Your task to perform on an android device: turn on sleep mode Image 0: 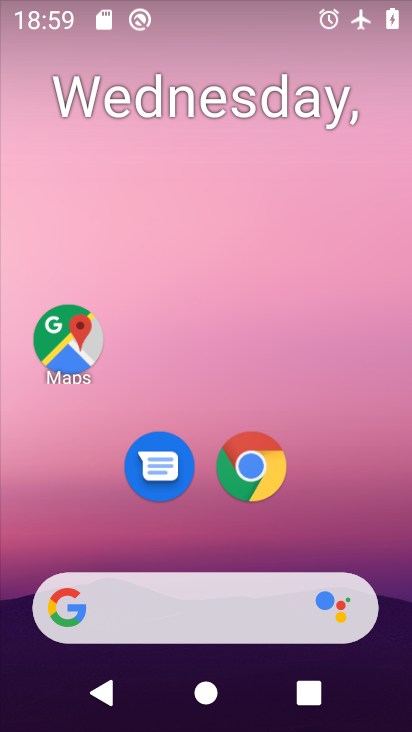
Step 0: drag from (361, 528) to (212, 42)
Your task to perform on an android device: turn on sleep mode Image 1: 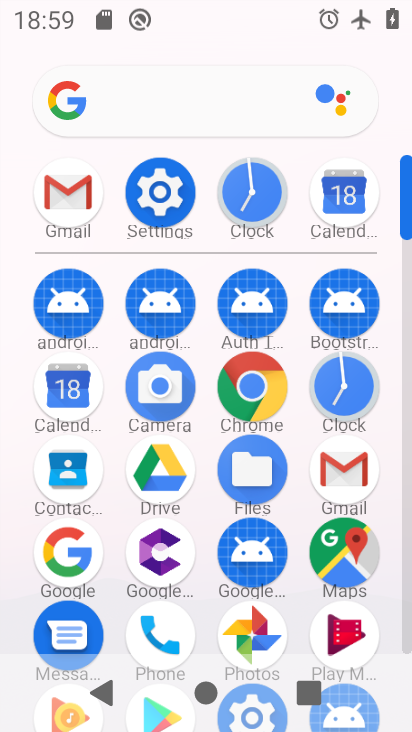
Step 1: click (153, 183)
Your task to perform on an android device: turn on sleep mode Image 2: 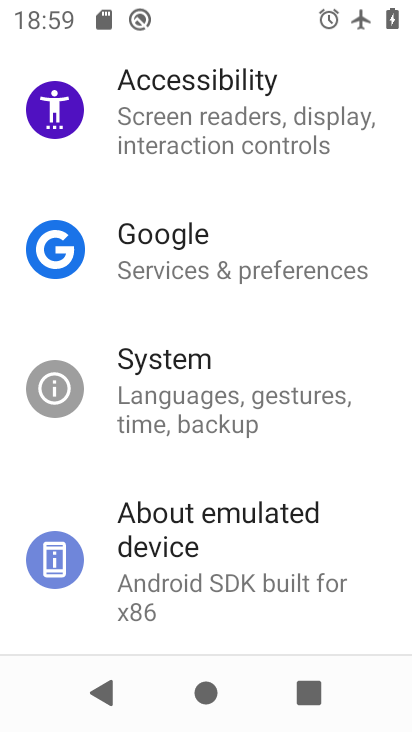
Step 2: drag from (223, 194) to (298, 716)
Your task to perform on an android device: turn on sleep mode Image 3: 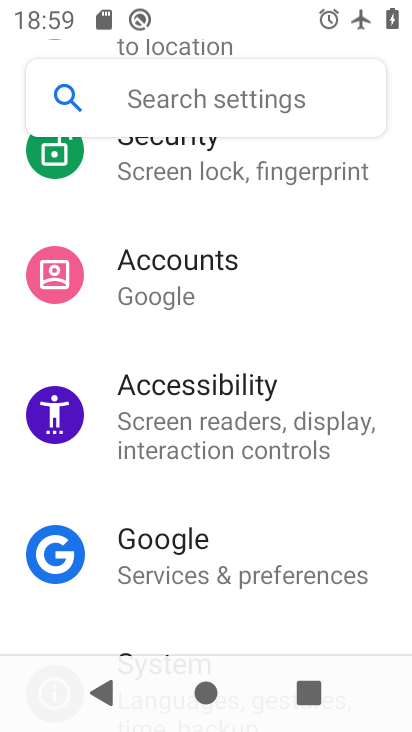
Step 3: drag from (150, 219) to (346, 661)
Your task to perform on an android device: turn on sleep mode Image 4: 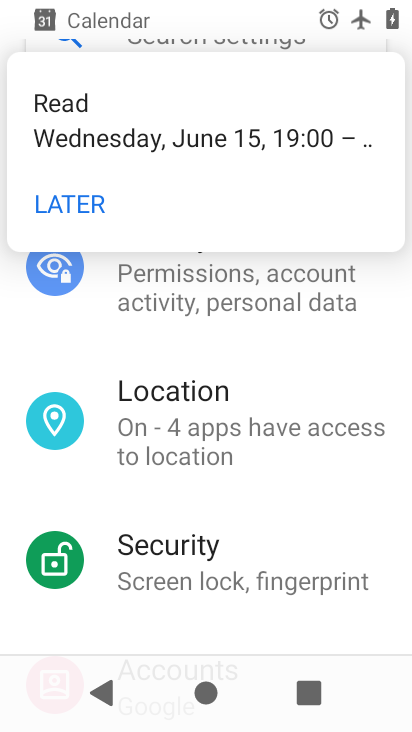
Step 4: click (81, 202)
Your task to perform on an android device: turn on sleep mode Image 5: 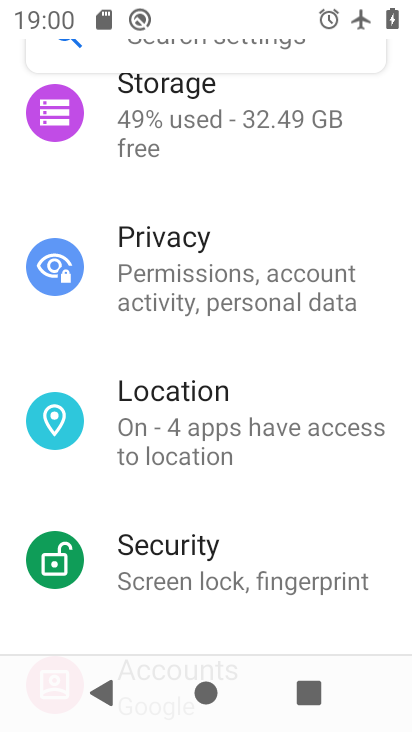
Step 5: drag from (170, 187) to (181, 620)
Your task to perform on an android device: turn on sleep mode Image 6: 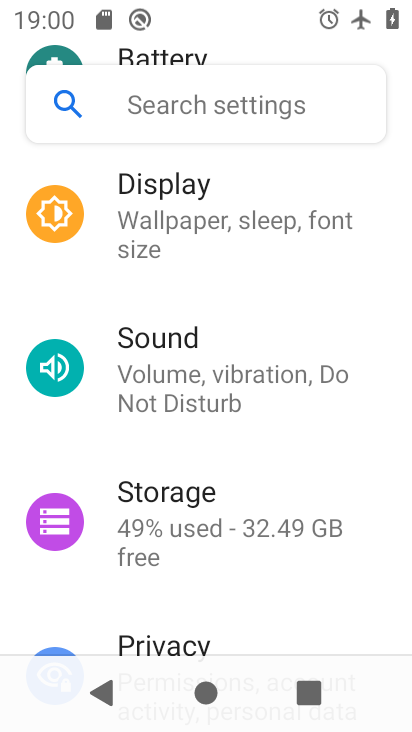
Step 6: click (171, 188)
Your task to perform on an android device: turn on sleep mode Image 7: 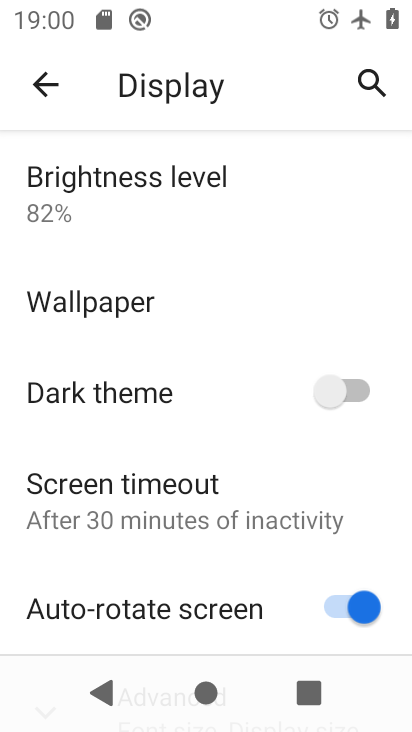
Step 7: task complete